Your task to perform on an android device: Search for seafood restaurants on Google Maps Image 0: 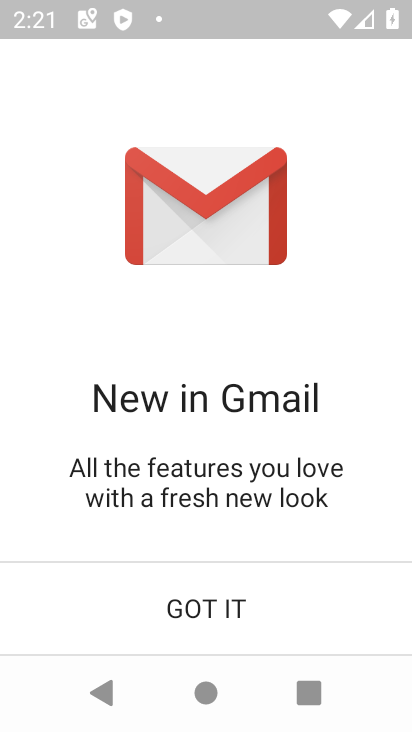
Step 0: click (206, 579)
Your task to perform on an android device: Search for seafood restaurants on Google Maps Image 1: 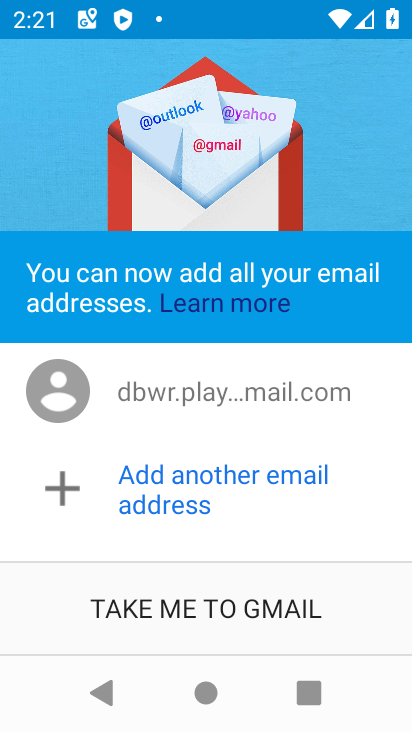
Step 1: press back button
Your task to perform on an android device: Search for seafood restaurants on Google Maps Image 2: 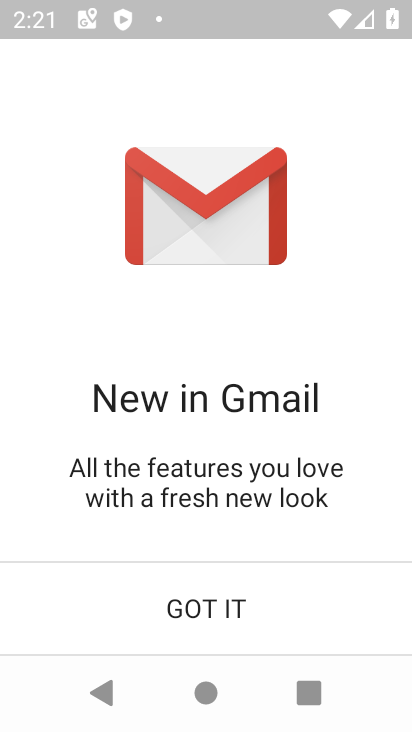
Step 2: press back button
Your task to perform on an android device: Search for seafood restaurants on Google Maps Image 3: 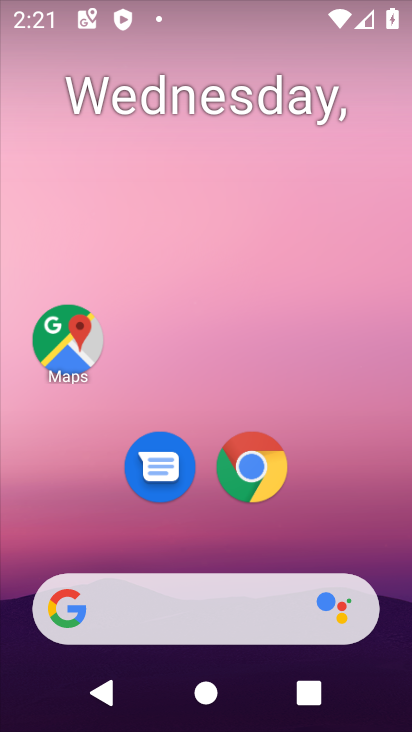
Step 3: drag from (366, 549) to (139, 108)
Your task to perform on an android device: Search for seafood restaurants on Google Maps Image 4: 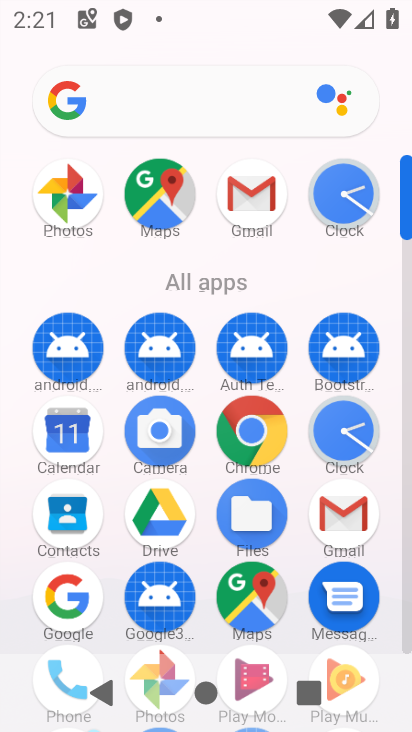
Step 4: click (155, 212)
Your task to perform on an android device: Search for seafood restaurants on Google Maps Image 5: 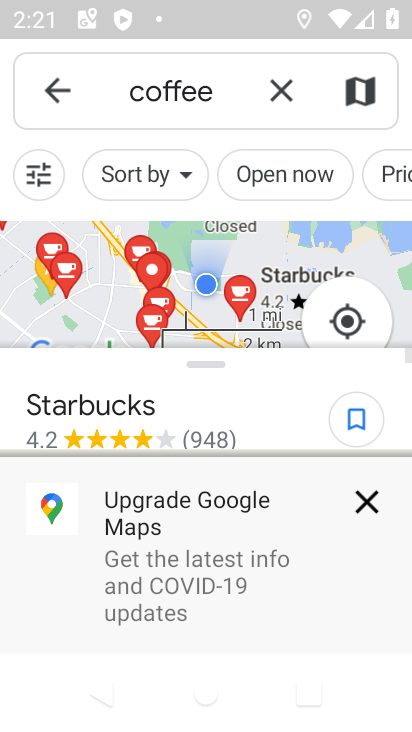
Step 5: click (283, 89)
Your task to perform on an android device: Search for seafood restaurants on Google Maps Image 6: 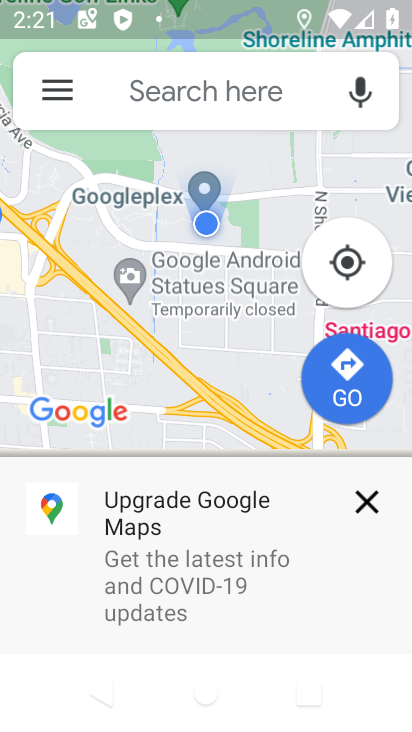
Step 6: click (155, 90)
Your task to perform on an android device: Search for seafood restaurants on Google Maps Image 7: 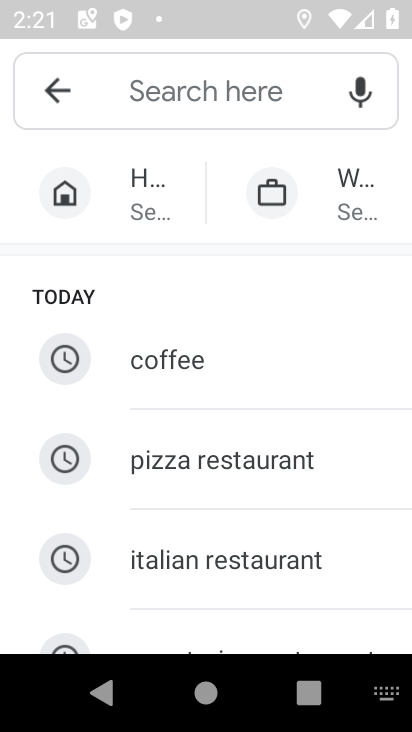
Step 7: type "seafood restaurants"
Your task to perform on an android device: Search for seafood restaurants on Google Maps Image 8: 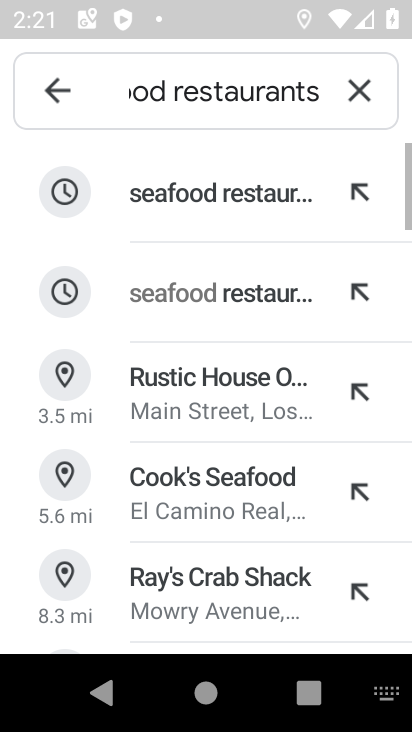
Step 8: click (222, 203)
Your task to perform on an android device: Search for seafood restaurants on Google Maps Image 9: 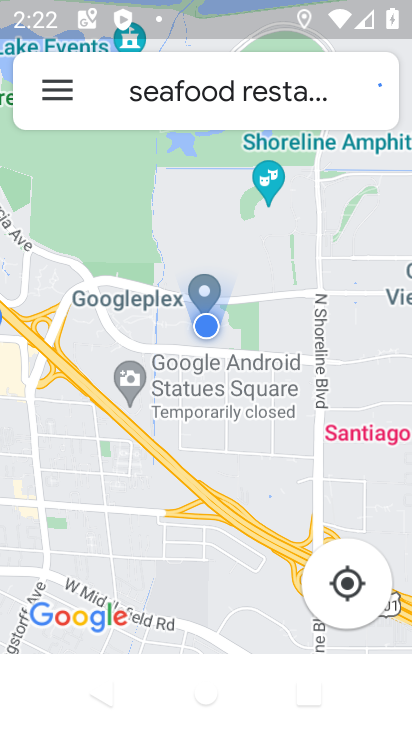
Step 9: task complete